Your task to perform on an android device: all mails in gmail Image 0: 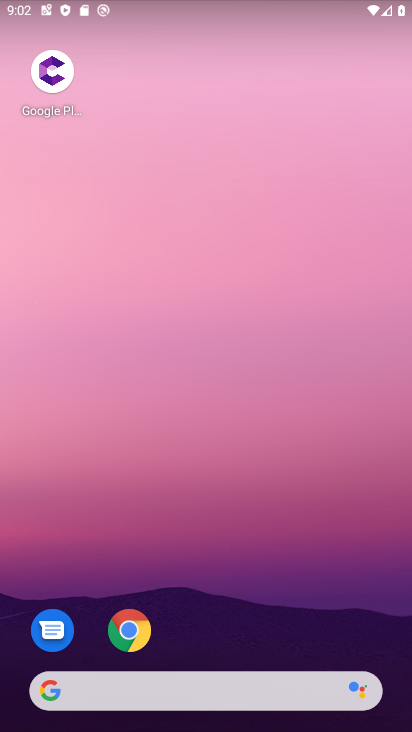
Step 0: drag from (235, 578) to (273, 335)
Your task to perform on an android device: all mails in gmail Image 1: 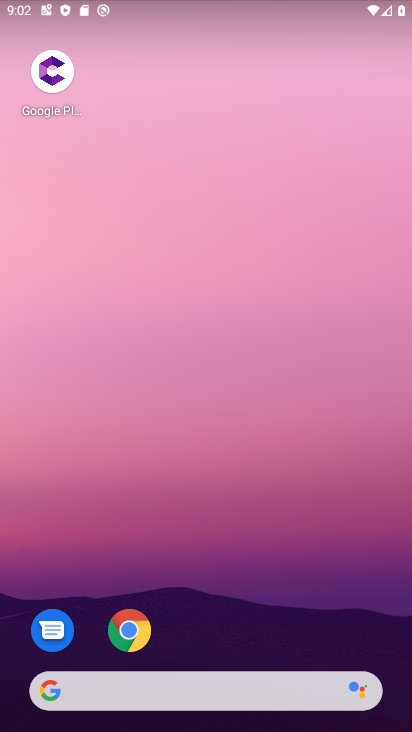
Step 1: drag from (271, 653) to (272, 71)
Your task to perform on an android device: all mails in gmail Image 2: 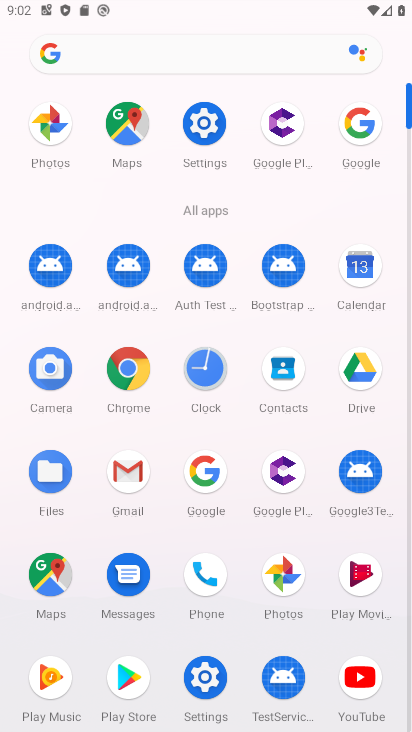
Step 2: click (127, 477)
Your task to perform on an android device: all mails in gmail Image 3: 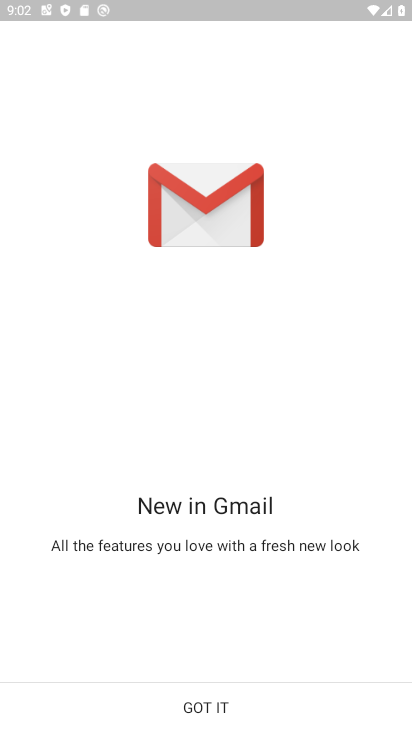
Step 3: click (165, 710)
Your task to perform on an android device: all mails in gmail Image 4: 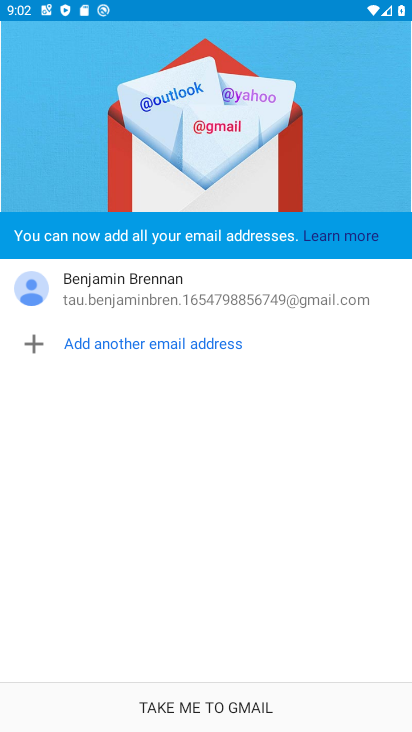
Step 4: click (165, 710)
Your task to perform on an android device: all mails in gmail Image 5: 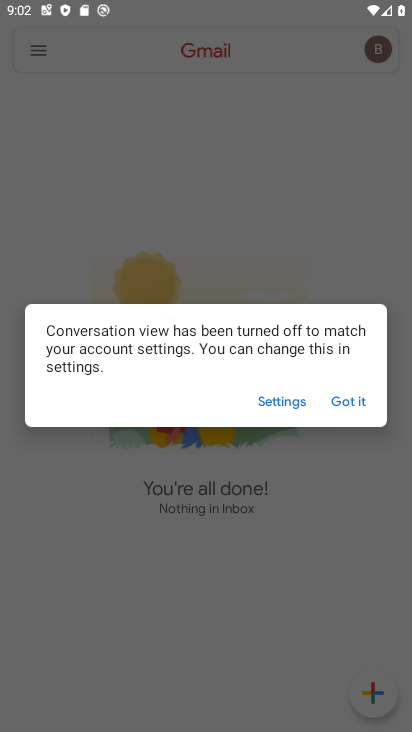
Step 5: click (357, 399)
Your task to perform on an android device: all mails in gmail Image 6: 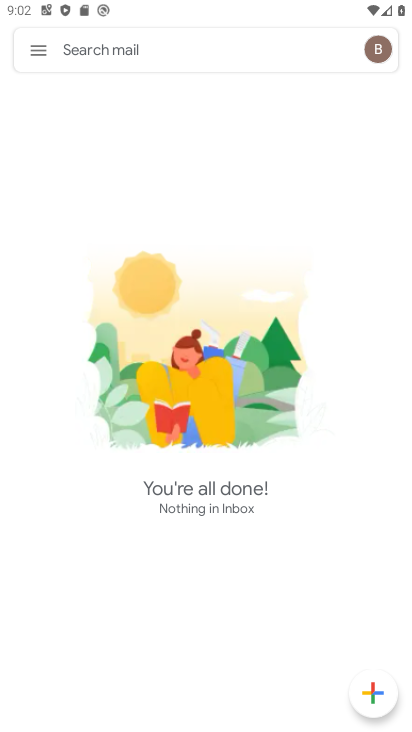
Step 6: click (23, 44)
Your task to perform on an android device: all mails in gmail Image 7: 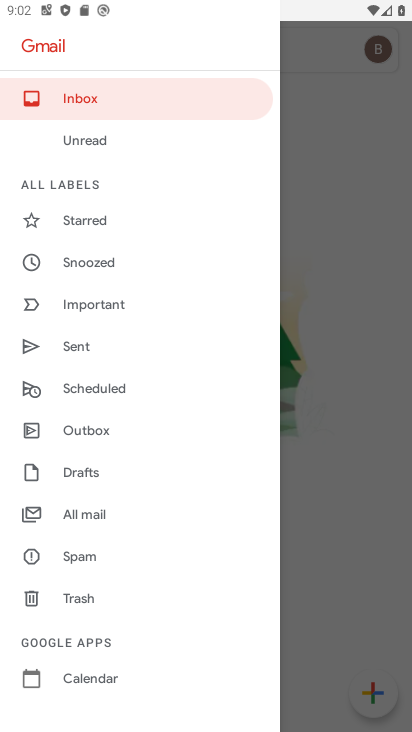
Step 7: click (118, 509)
Your task to perform on an android device: all mails in gmail Image 8: 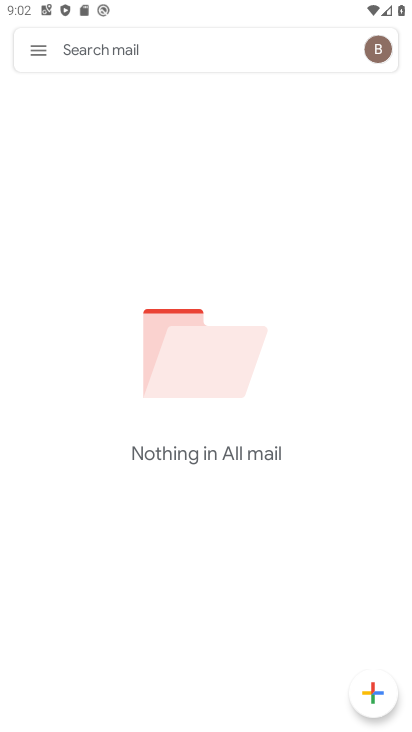
Step 8: task complete